Your task to perform on an android device: empty trash in google photos Image 0: 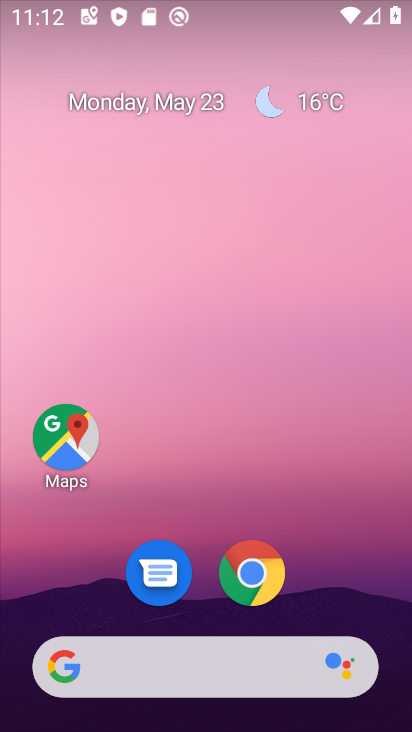
Step 0: drag from (306, 503) to (238, 50)
Your task to perform on an android device: empty trash in google photos Image 1: 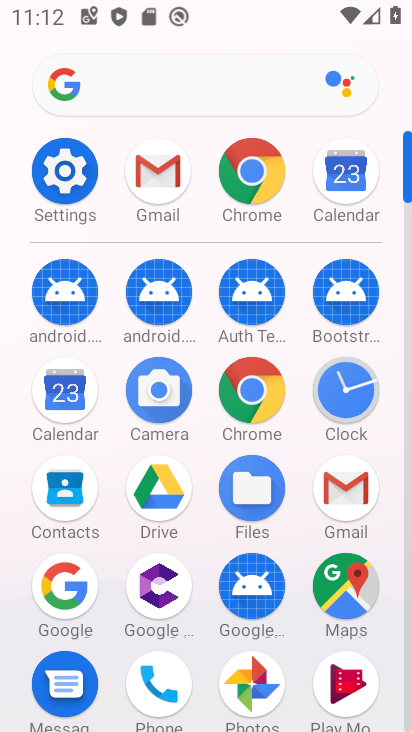
Step 1: drag from (8, 473) to (8, 164)
Your task to perform on an android device: empty trash in google photos Image 2: 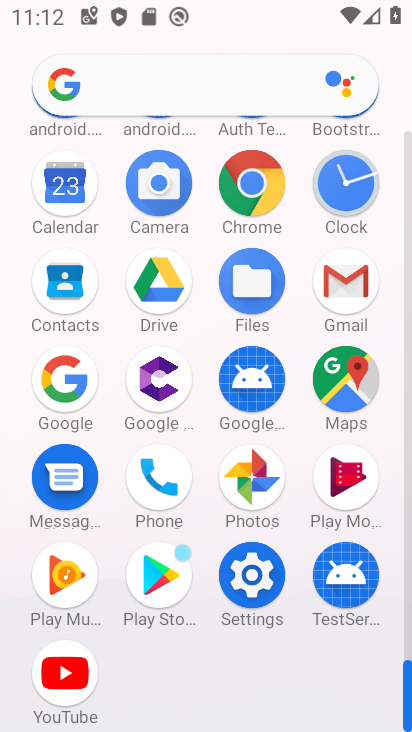
Step 2: drag from (26, 429) to (20, 99)
Your task to perform on an android device: empty trash in google photos Image 3: 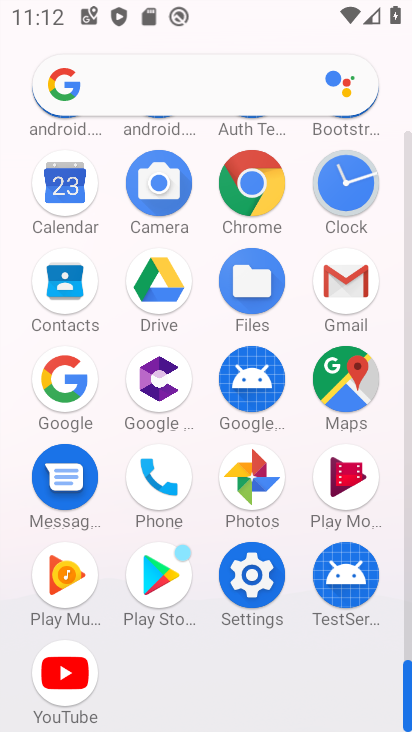
Step 3: click (259, 467)
Your task to perform on an android device: empty trash in google photos Image 4: 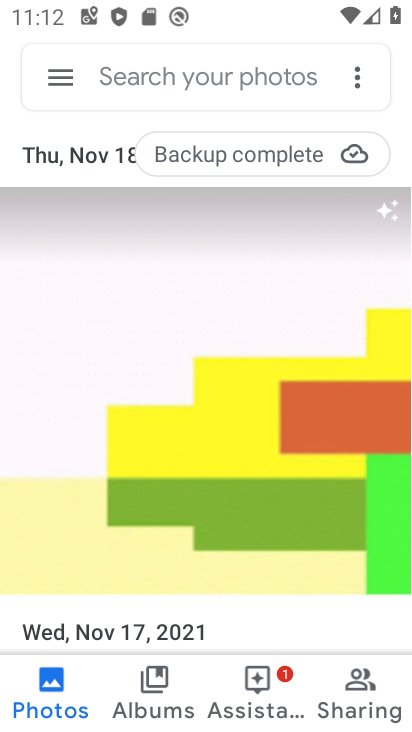
Step 4: click (62, 84)
Your task to perform on an android device: empty trash in google photos Image 5: 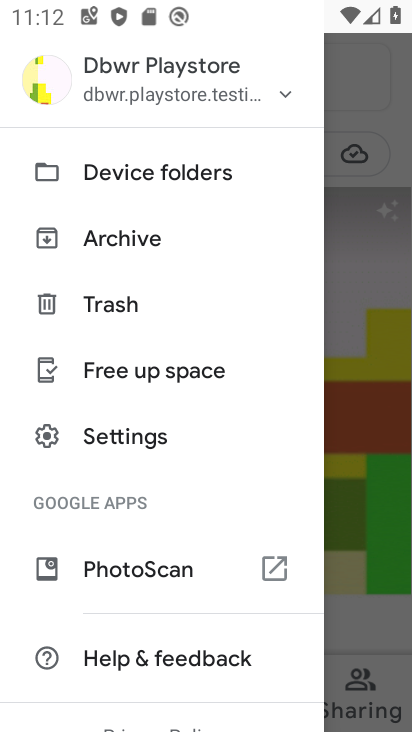
Step 5: click (120, 304)
Your task to perform on an android device: empty trash in google photos Image 6: 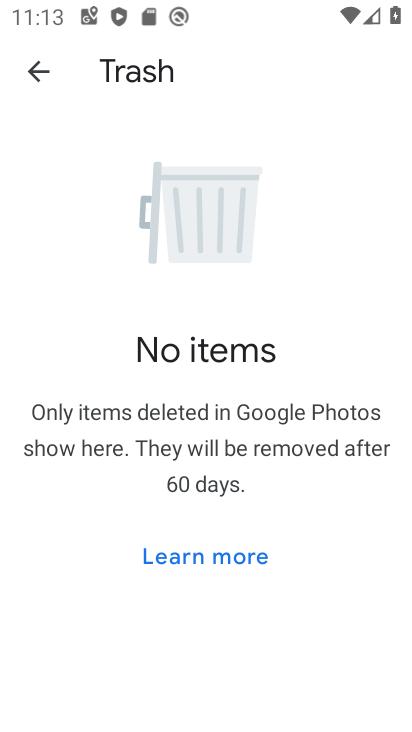
Step 6: task complete